Your task to perform on an android device: Show me recent news Image 0: 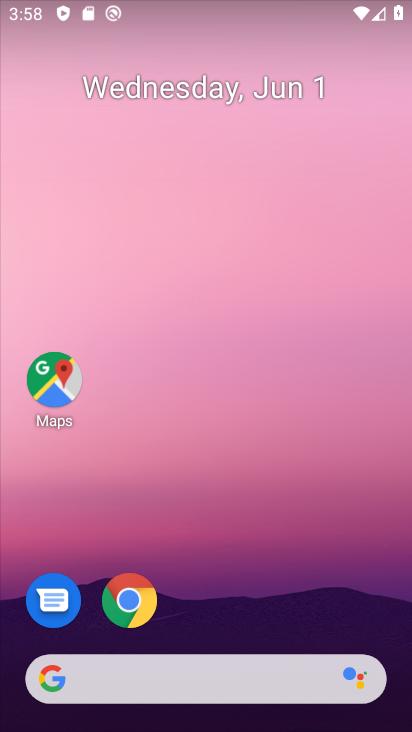
Step 0: click (376, 363)
Your task to perform on an android device: Show me recent news Image 1: 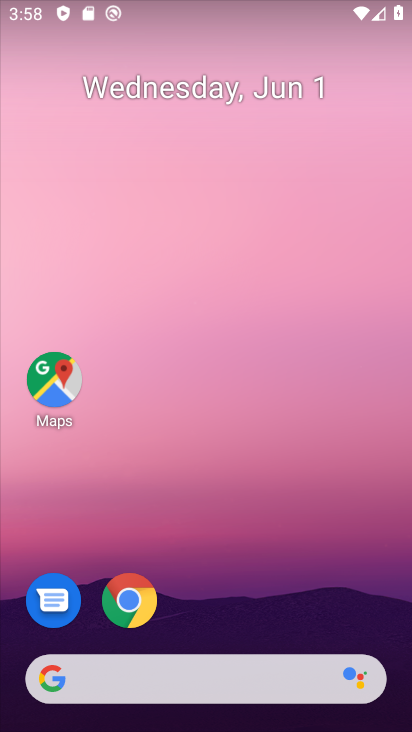
Step 1: drag from (29, 274) to (322, 452)
Your task to perform on an android device: Show me recent news Image 2: 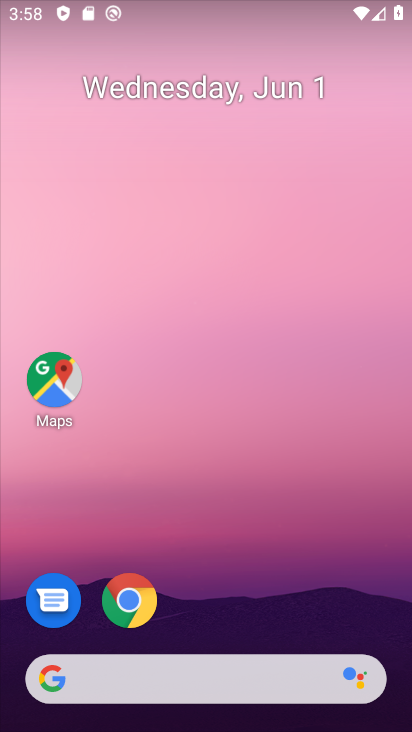
Step 2: drag from (5, 279) to (351, 394)
Your task to perform on an android device: Show me recent news Image 3: 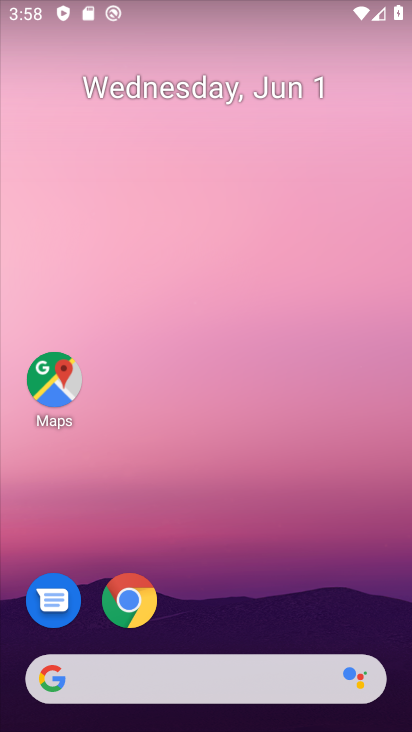
Step 3: drag from (19, 216) to (293, 420)
Your task to perform on an android device: Show me recent news Image 4: 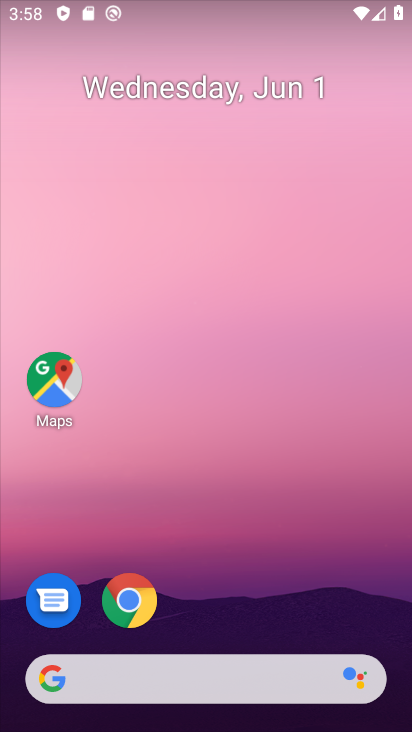
Step 4: drag from (23, 237) to (369, 289)
Your task to perform on an android device: Show me recent news Image 5: 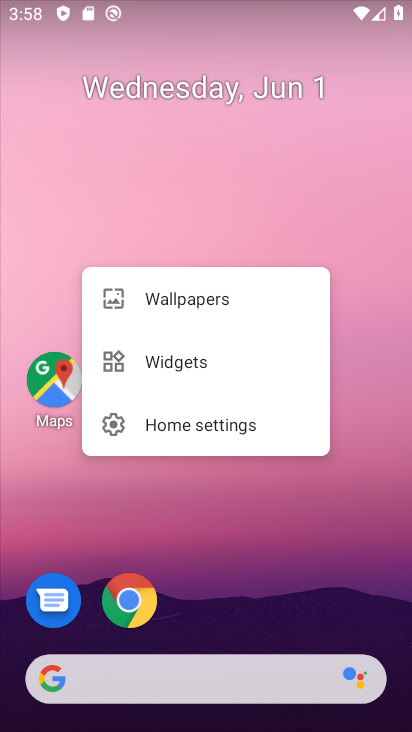
Step 5: drag from (37, 289) to (380, 503)
Your task to perform on an android device: Show me recent news Image 6: 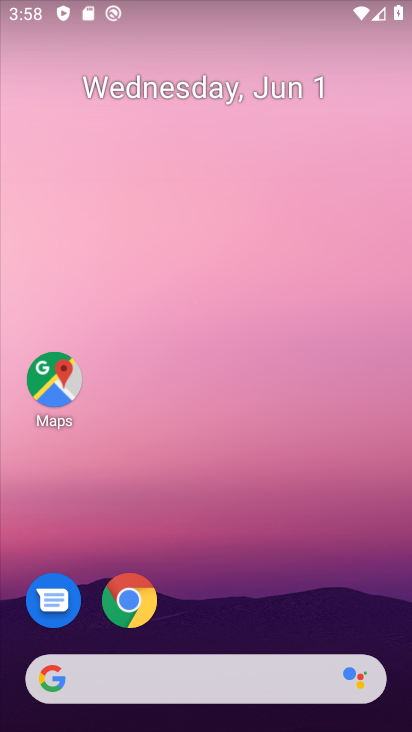
Step 6: click (123, 215)
Your task to perform on an android device: Show me recent news Image 7: 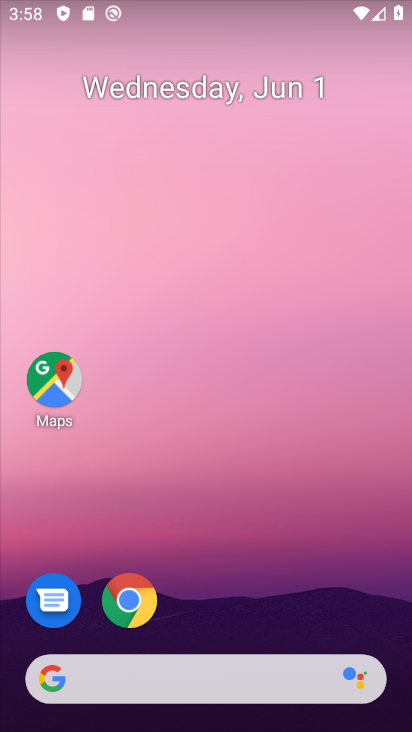
Step 7: task complete